Your task to perform on an android device: Toggle the flashlight Image 0: 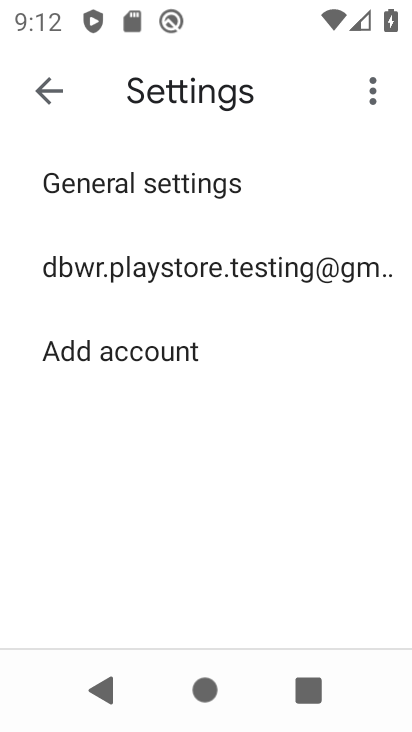
Step 0: press home button
Your task to perform on an android device: Toggle the flashlight Image 1: 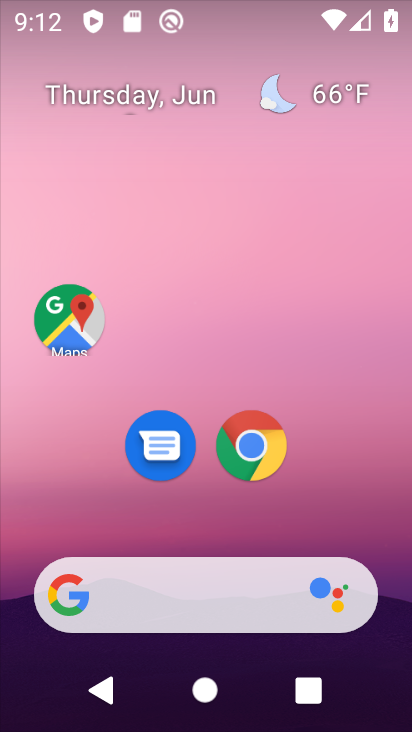
Step 1: drag from (308, 513) to (304, 2)
Your task to perform on an android device: Toggle the flashlight Image 2: 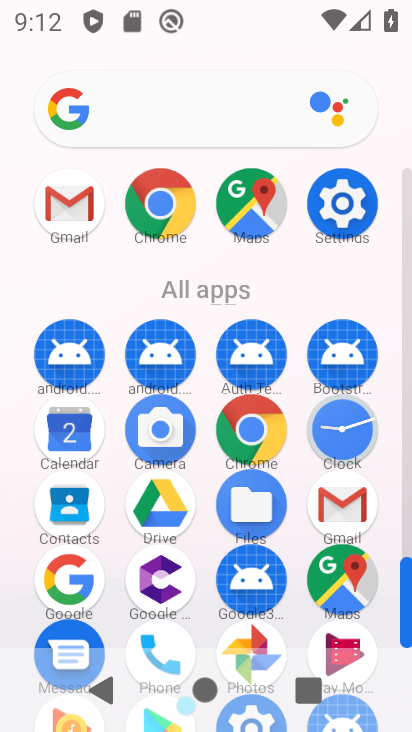
Step 2: click (341, 191)
Your task to perform on an android device: Toggle the flashlight Image 3: 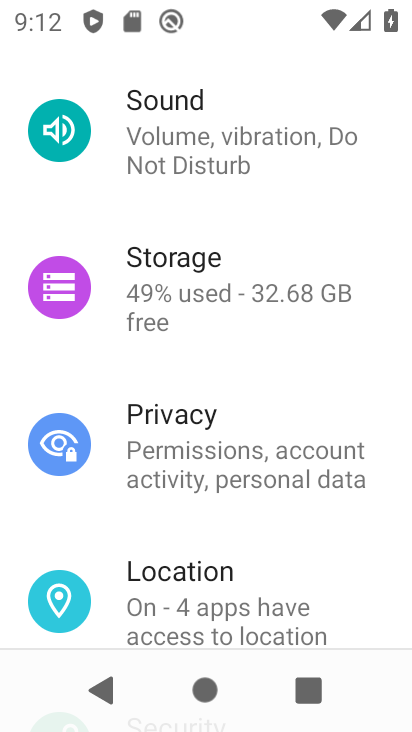
Step 3: task complete